Your task to perform on an android device: toggle location history Image 0: 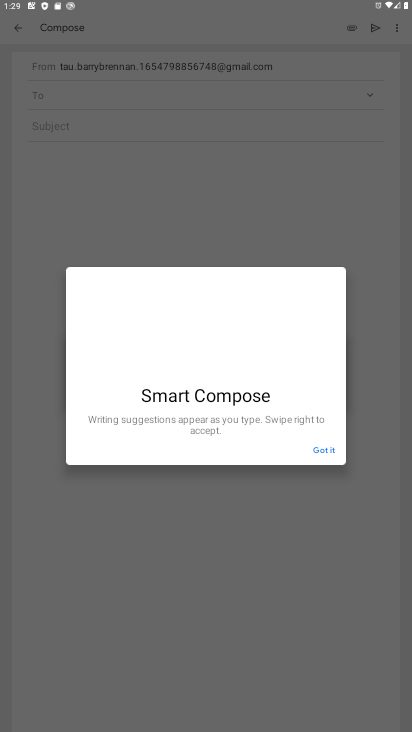
Step 0: press home button
Your task to perform on an android device: toggle location history Image 1: 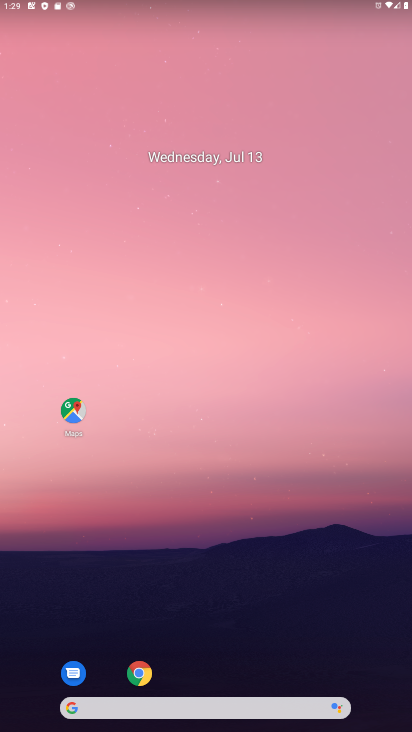
Step 1: drag from (224, 672) to (236, 157)
Your task to perform on an android device: toggle location history Image 2: 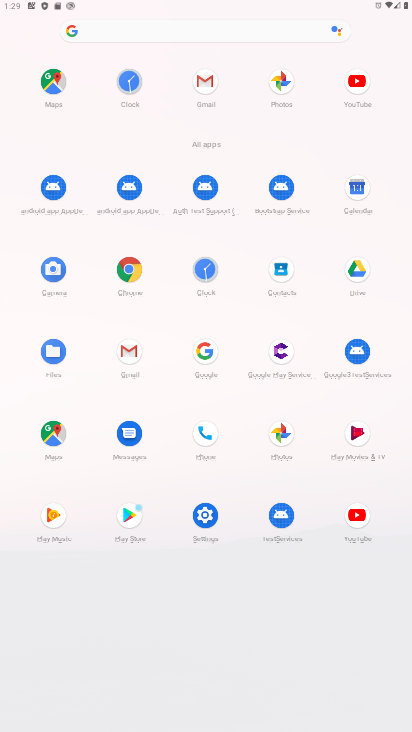
Step 2: click (206, 518)
Your task to perform on an android device: toggle location history Image 3: 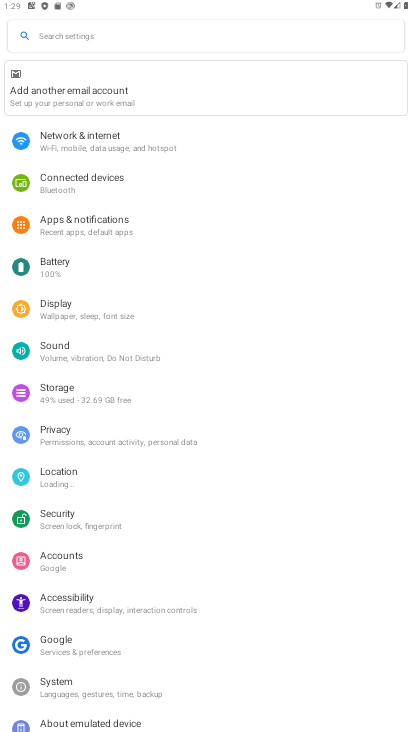
Step 3: click (62, 482)
Your task to perform on an android device: toggle location history Image 4: 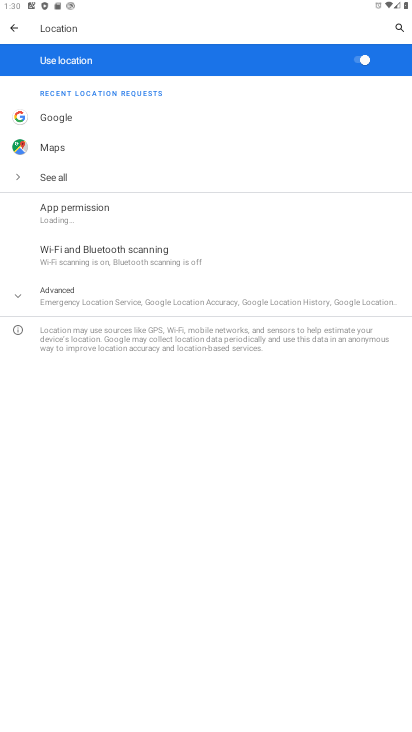
Step 4: click (72, 288)
Your task to perform on an android device: toggle location history Image 5: 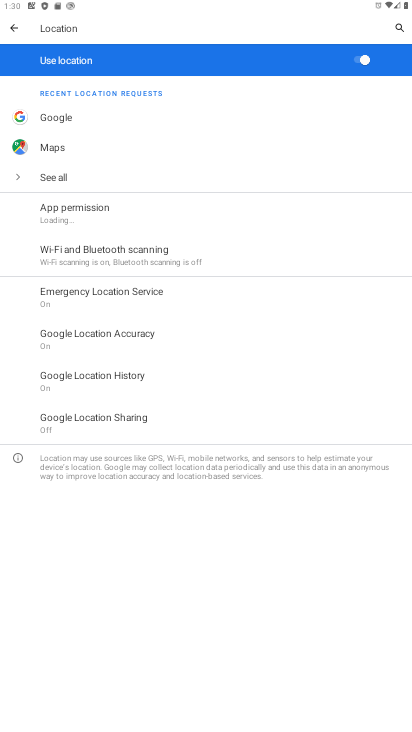
Step 5: click (116, 380)
Your task to perform on an android device: toggle location history Image 6: 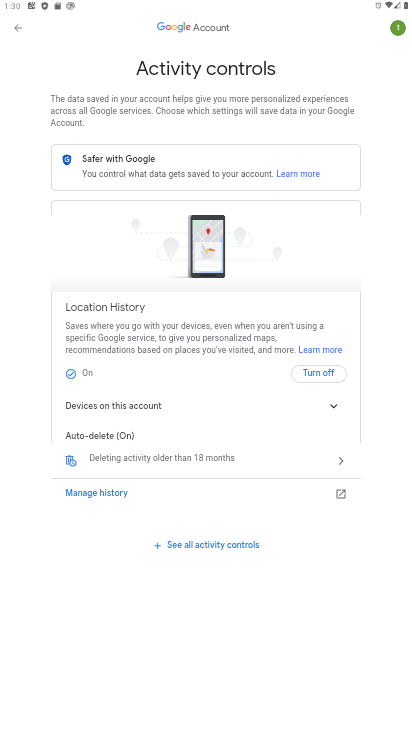
Step 6: click (309, 373)
Your task to perform on an android device: toggle location history Image 7: 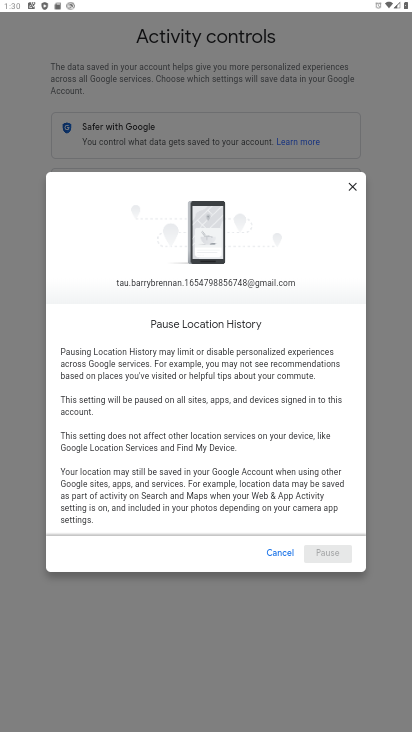
Step 7: drag from (221, 428) to (225, 65)
Your task to perform on an android device: toggle location history Image 8: 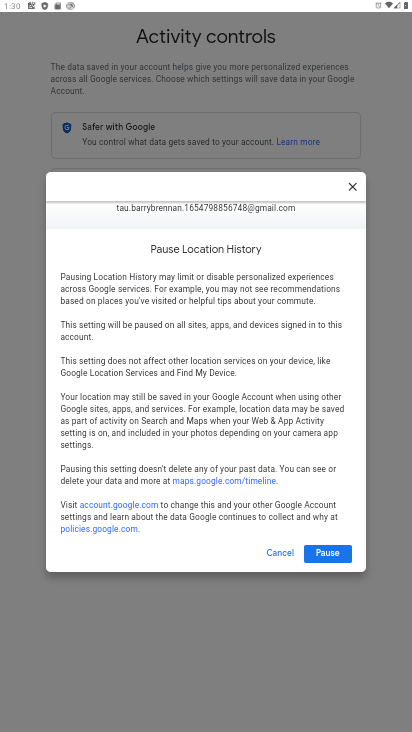
Step 8: click (324, 554)
Your task to perform on an android device: toggle location history Image 9: 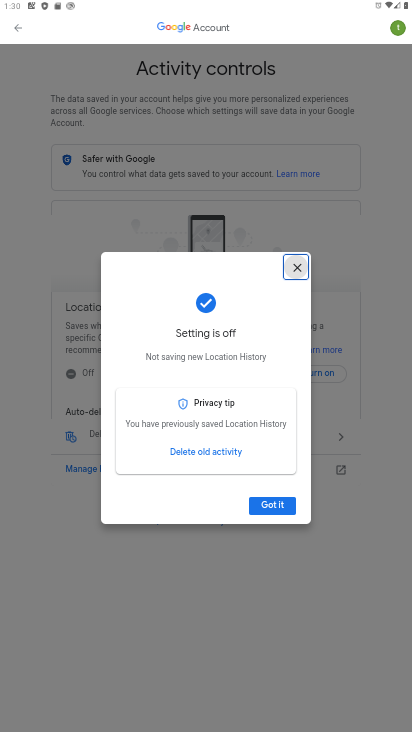
Step 9: click (275, 510)
Your task to perform on an android device: toggle location history Image 10: 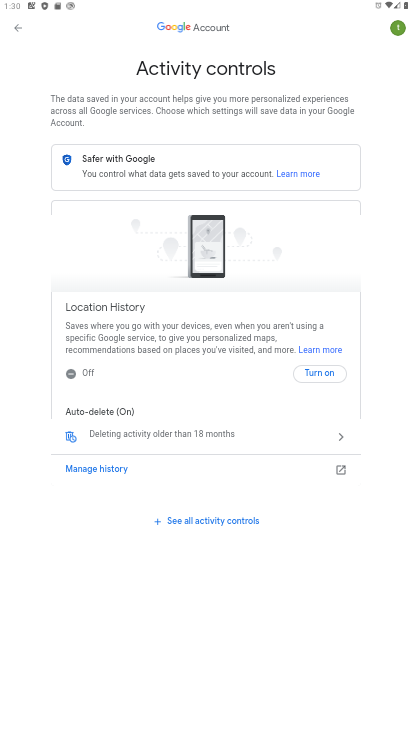
Step 10: task complete